Your task to perform on an android device: Open Wikipedia Image 0: 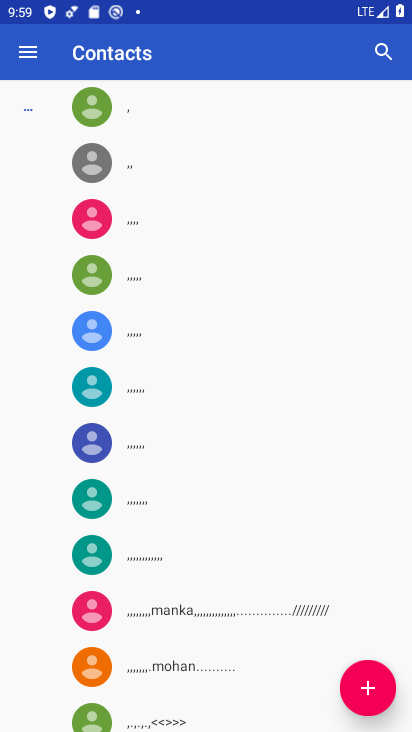
Step 0: press home button
Your task to perform on an android device: Open Wikipedia Image 1: 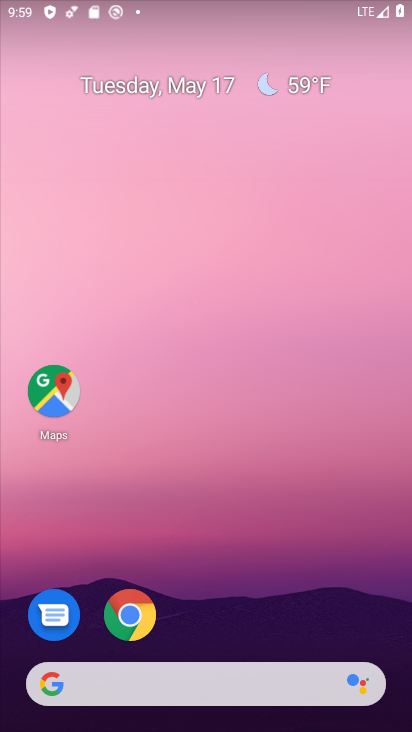
Step 1: click (130, 619)
Your task to perform on an android device: Open Wikipedia Image 2: 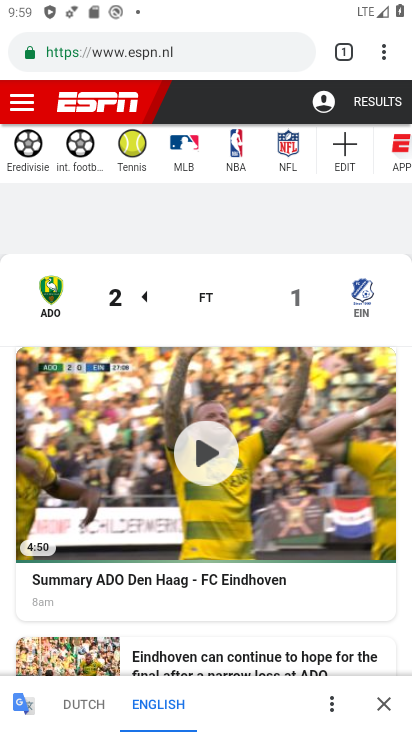
Step 2: drag from (383, 54) to (245, 101)
Your task to perform on an android device: Open Wikipedia Image 3: 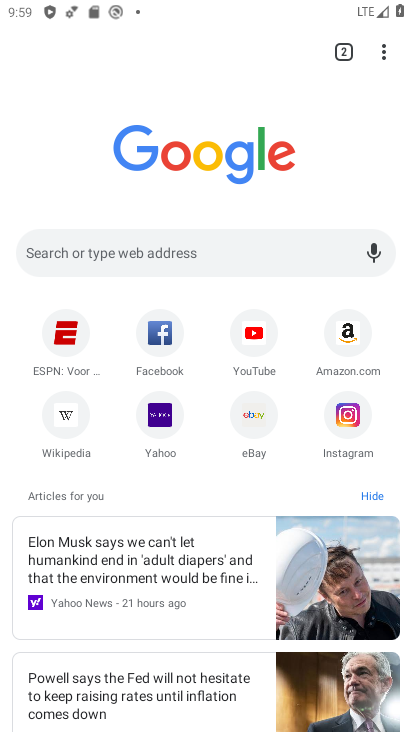
Step 3: click (71, 421)
Your task to perform on an android device: Open Wikipedia Image 4: 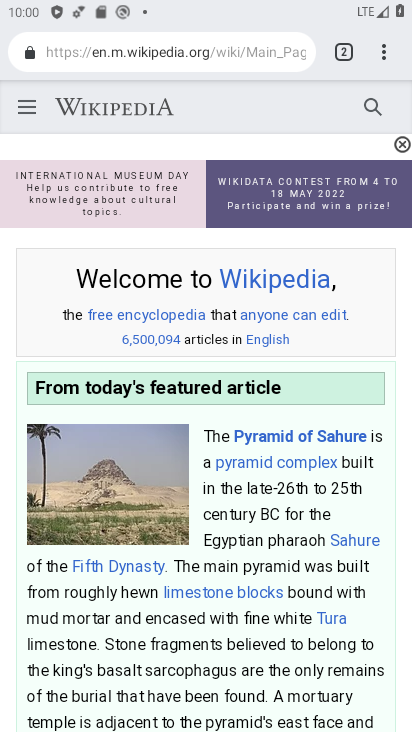
Step 4: task complete